Your task to perform on an android device: choose inbox layout in the gmail app Image 0: 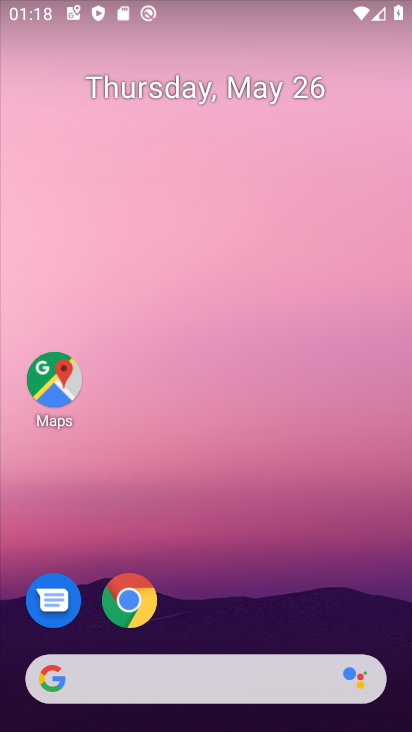
Step 0: click (264, 139)
Your task to perform on an android device: choose inbox layout in the gmail app Image 1: 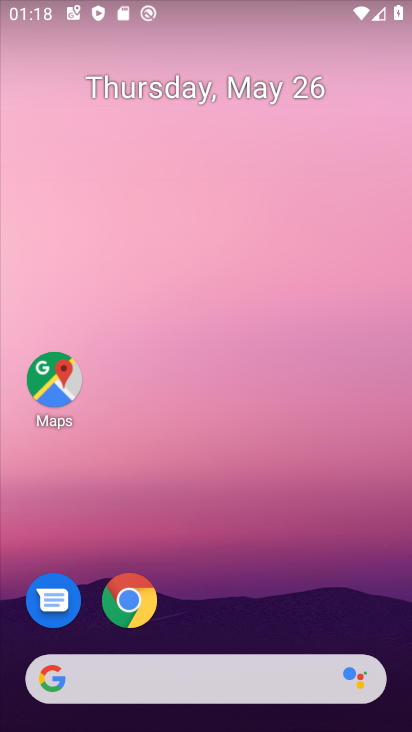
Step 1: drag from (195, 485) to (191, 0)
Your task to perform on an android device: choose inbox layout in the gmail app Image 2: 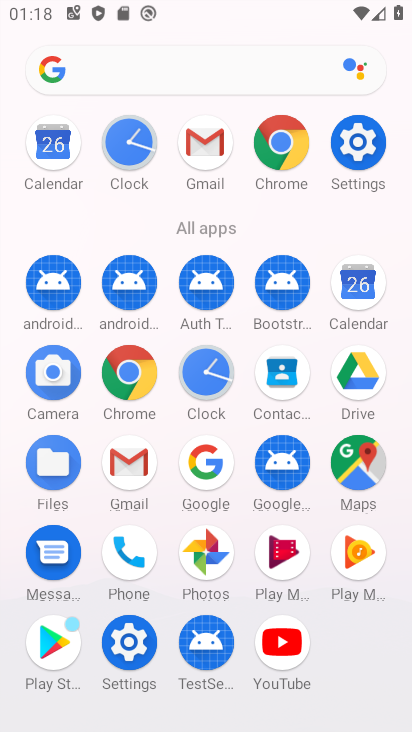
Step 2: click (196, 147)
Your task to perform on an android device: choose inbox layout in the gmail app Image 3: 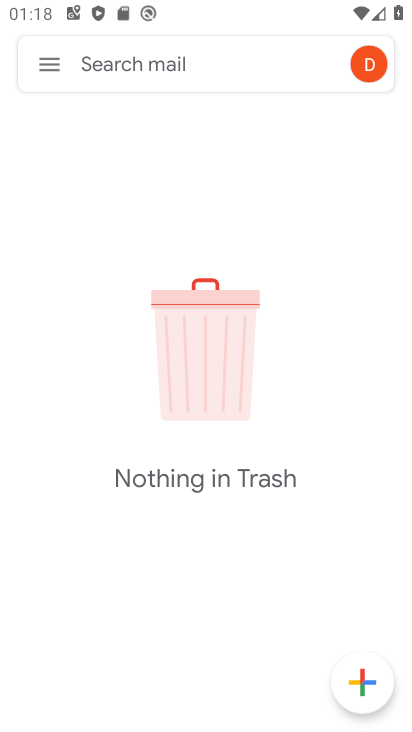
Step 3: click (55, 79)
Your task to perform on an android device: choose inbox layout in the gmail app Image 4: 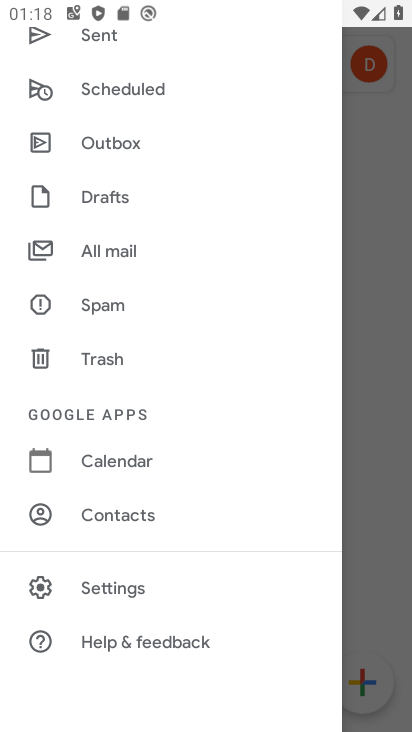
Step 4: drag from (145, 148) to (178, 403)
Your task to perform on an android device: choose inbox layout in the gmail app Image 5: 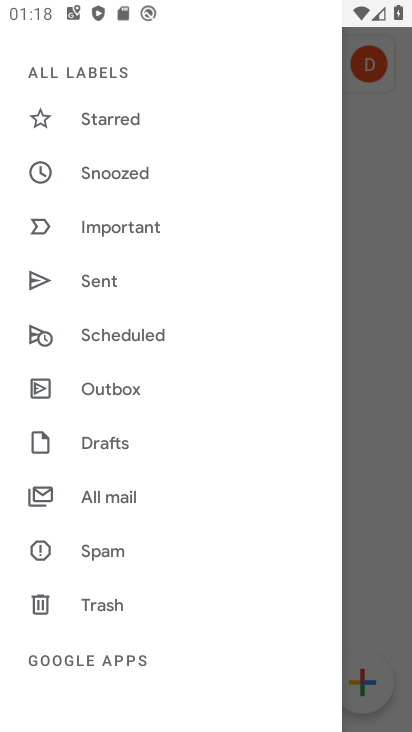
Step 5: drag from (128, 184) to (143, 462)
Your task to perform on an android device: choose inbox layout in the gmail app Image 6: 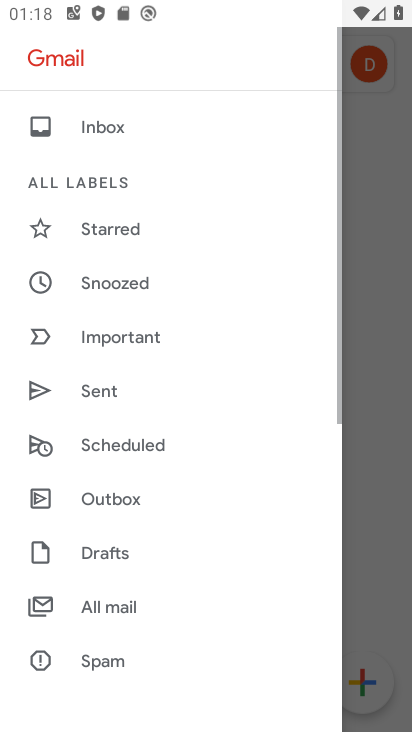
Step 6: click (102, 122)
Your task to perform on an android device: choose inbox layout in the gmail app Image 7: 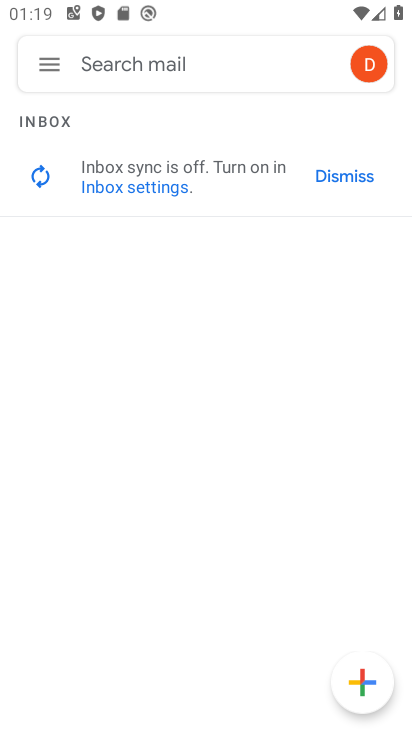
Step 7: click (136, 193)
Your task to perform on an android device: choose inbox layout in the gmail app Image 8: 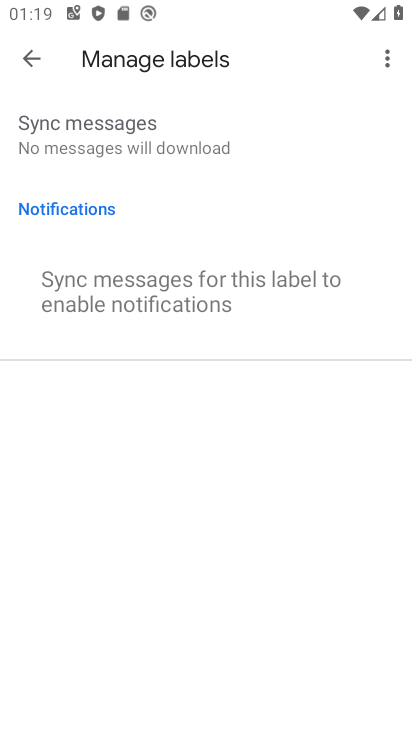
Step 8: task complete